Your task to perform on an android device: Turn off the flashlight Image 0: 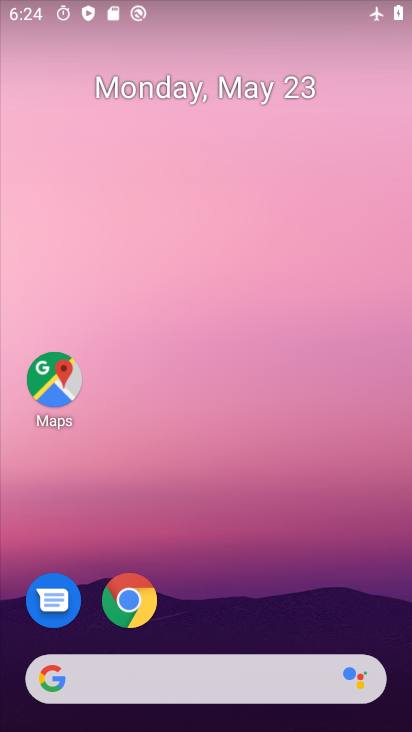
Step 0: drag from (254, 633) to (217, 279)
Your task to perform on an android device: Turn off the flashlight Image 1: 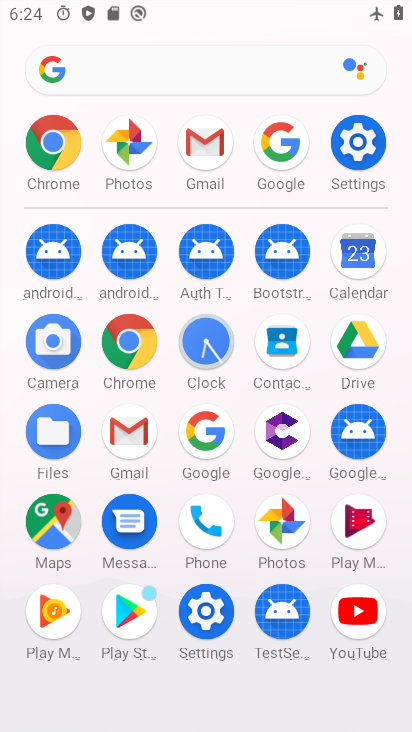
Step 1: click (373, 147)
Your task to perform on an android device: Turn off the flashlight Image 2: 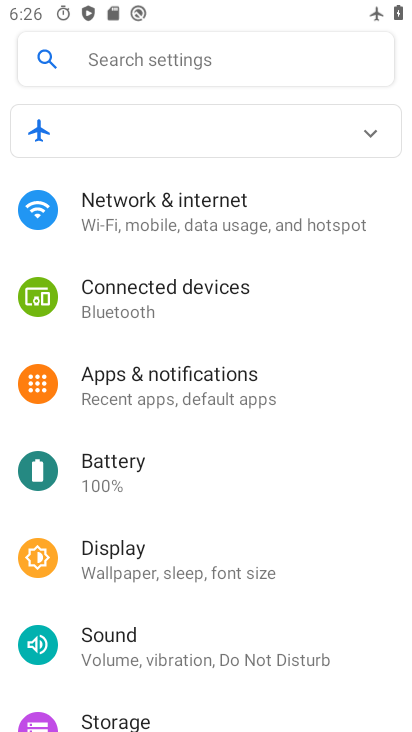
Step 2: task complete